Your task to perform on an android device: turn on location history Image 0: 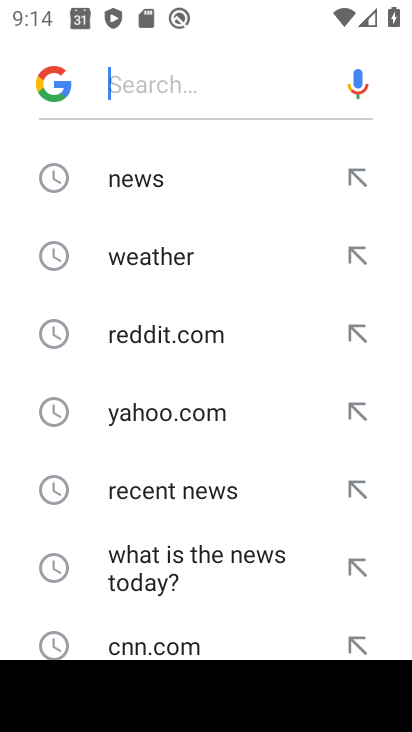
Step 0: press back button
Your task to perform on an android device: turn on location history Image 1: 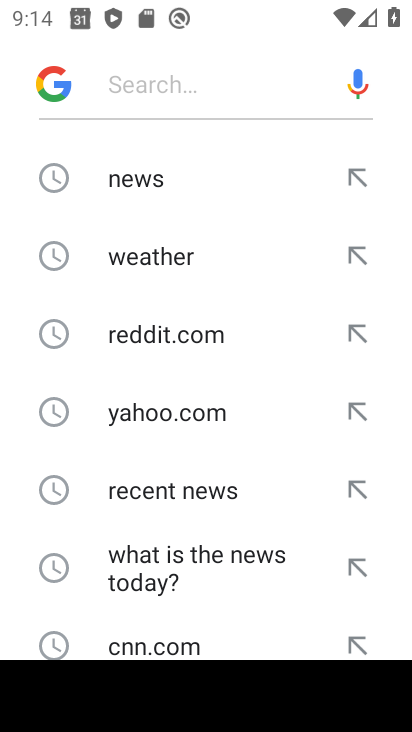
Step 1: press back button
Your task to perform on an android device: turn on location history Image 2: 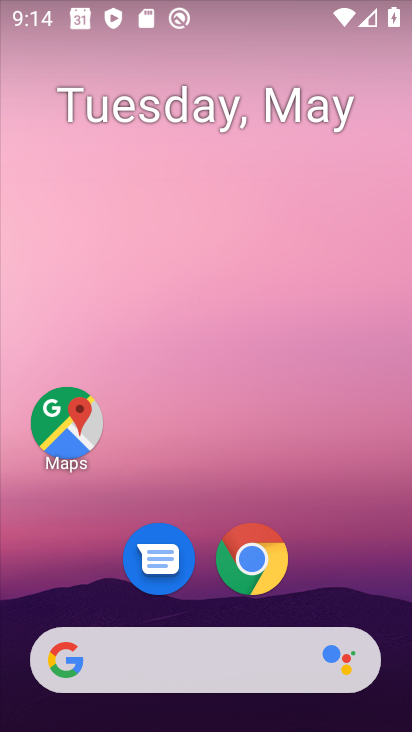
Step 2: press back button
Your task to perform on an android device: turn on location history Image 3: 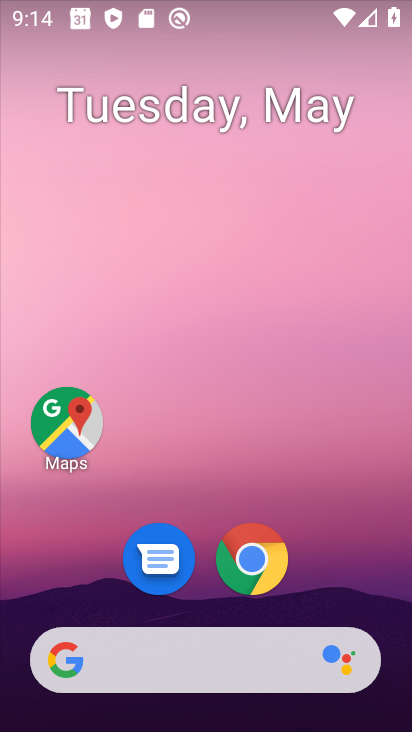
Step 3: drag from (384, 585) to (101, 29)
Your task to perform on an android device: turn on location history Image 4: 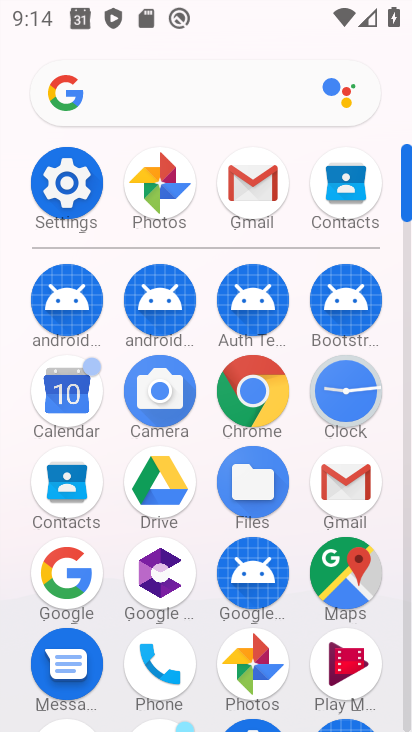
Step 4: click (345, 595)
Your task to perform on an android device: turn on location history Image 5: 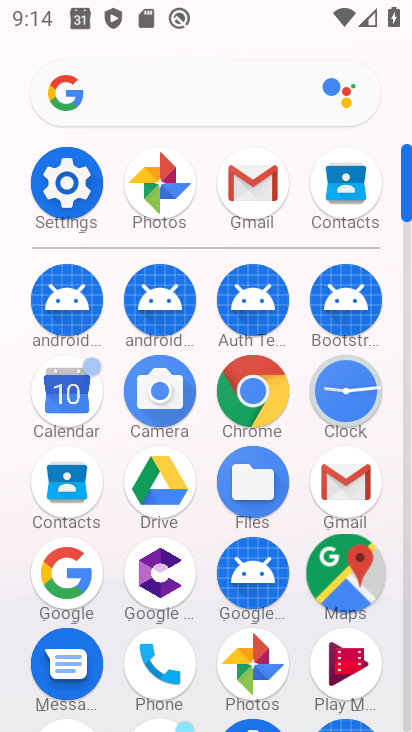
Step 5: click (348, 587)
Your task to perform on an android device: turn on location history Image 6: 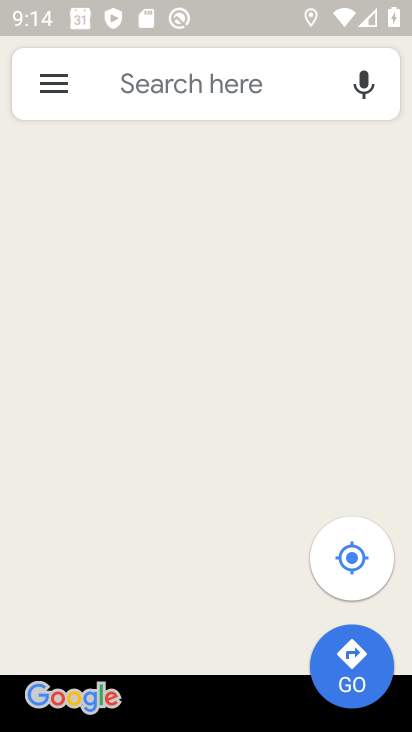
Step 6: click (56, 76)
Your task to perform on an android device: turn on location history Image 7: 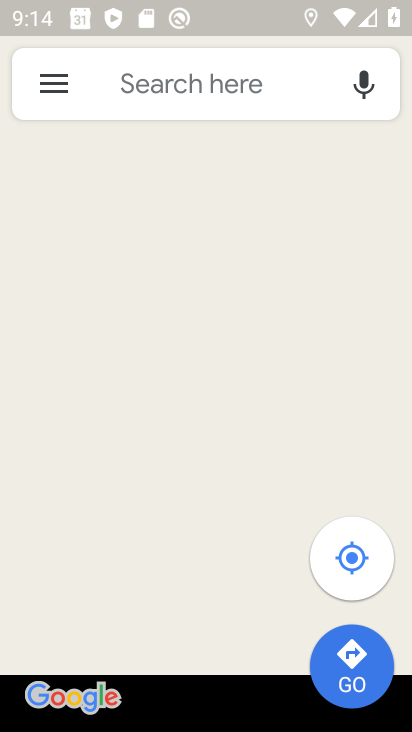
Step 7: click (56, 76)
Your task to perform on an android device: turn on location history Image 8: 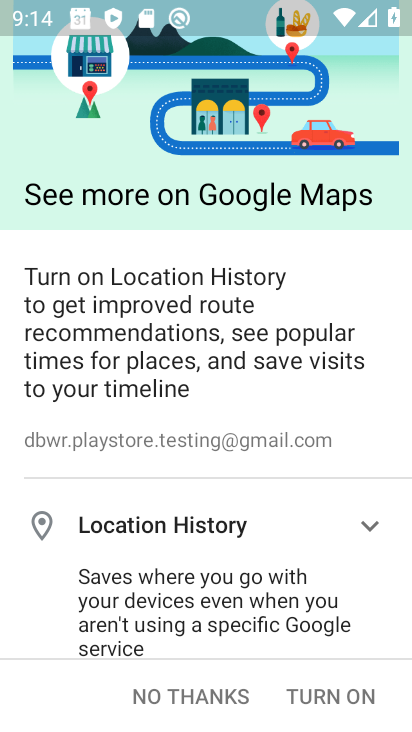
Step 8: click (337, 691)
Your task to perform on an android device: turn on location history Image 9: 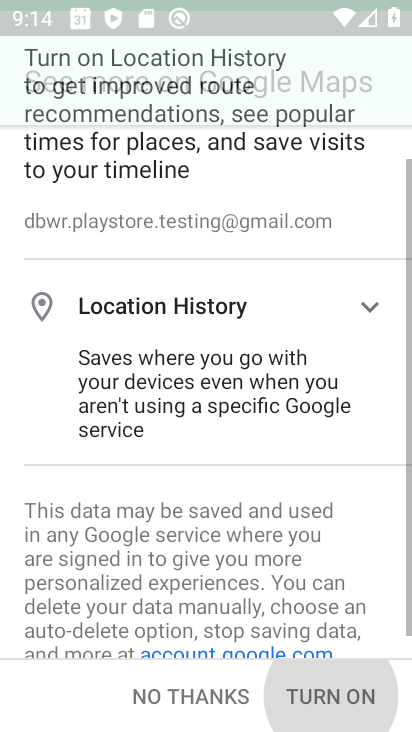
Step 9: click (337, 691)
Your task to perform on an android device: turn on location history Image 10: 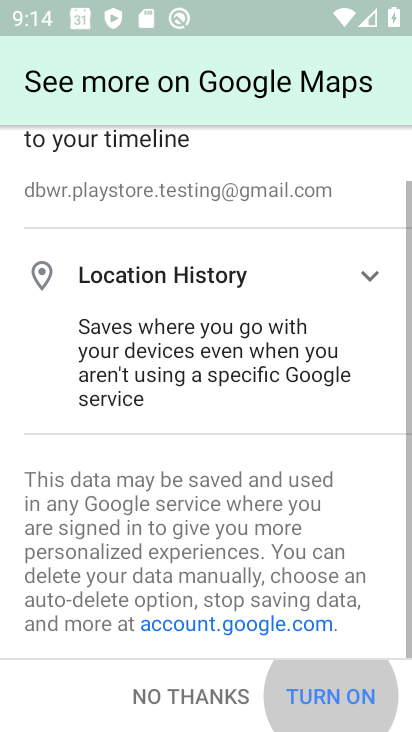
Step 10: click (341, 687)
Your task to perform on an android device: turn on location history Image 11: 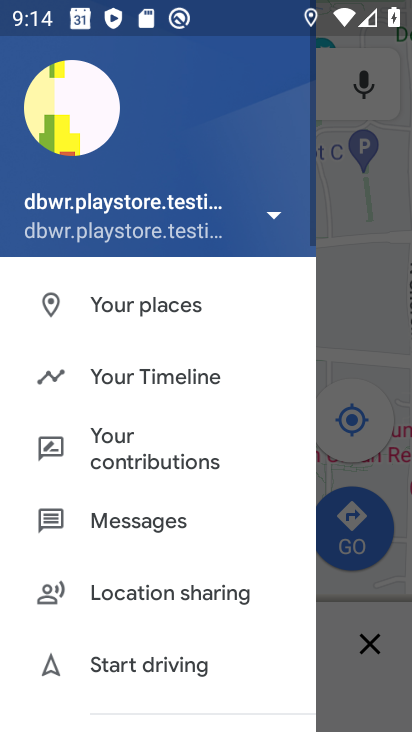
Step 11: click (361, 298)
Your task to perform on an android device: turn on location history Image 12: 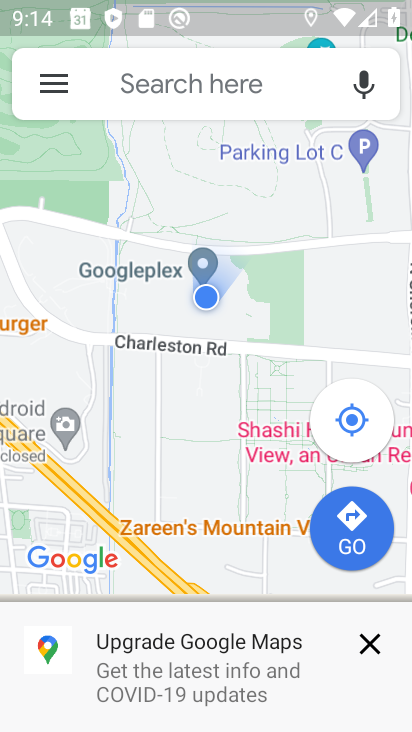
Step 12: task complete